Your task to perform on an android device: set the stopwatch Image 0: 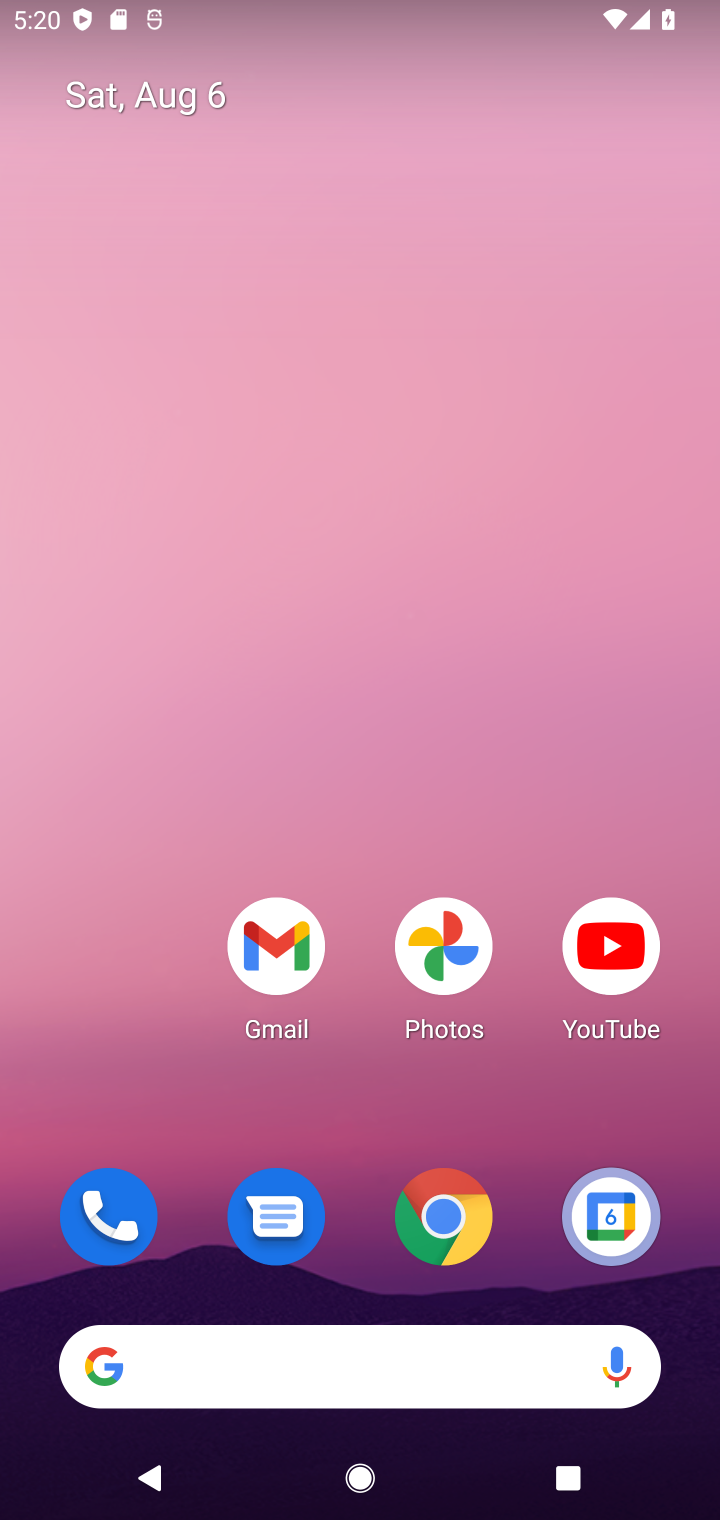
Step 0: drag from (342, 746) to (174, 588)
Your task to perform on an android device: set the stopwatch Image 1: 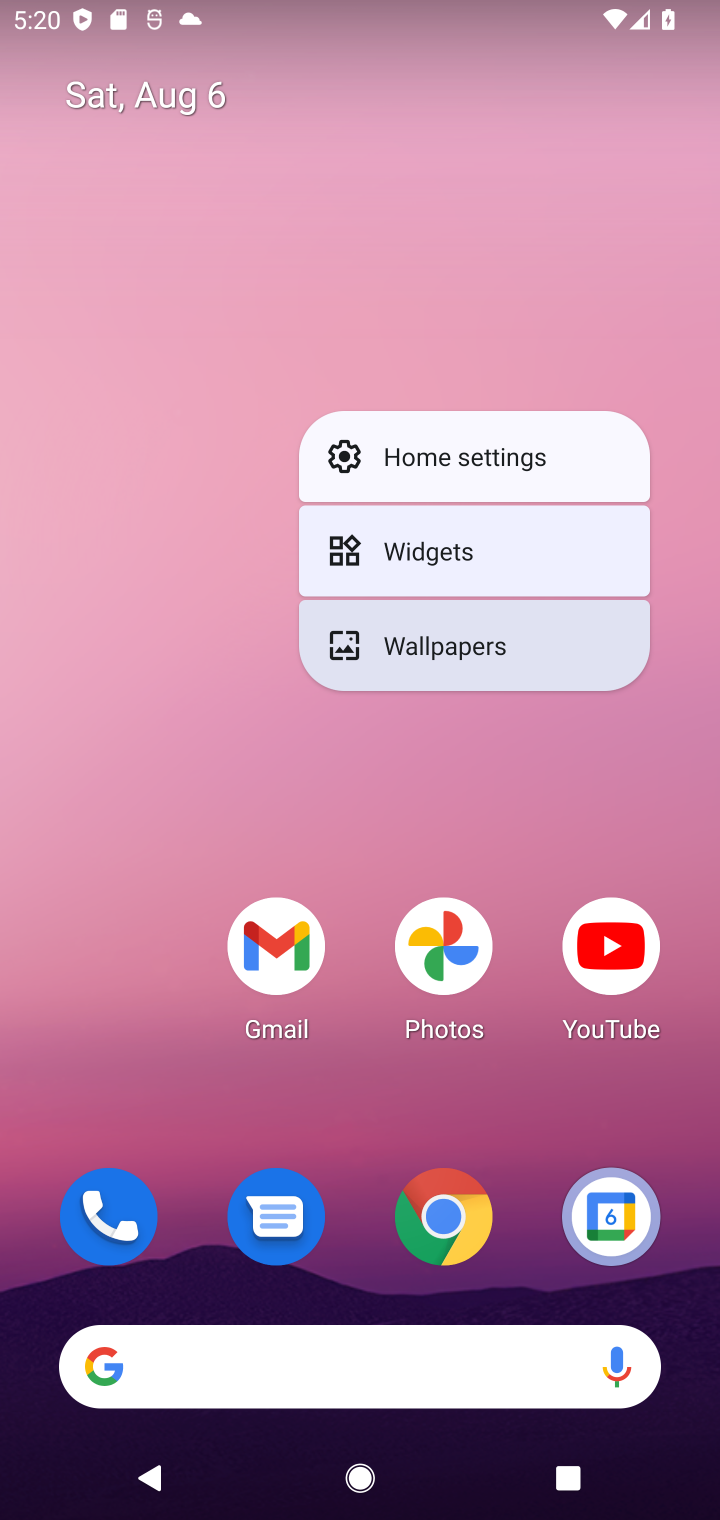
Step 1: click (225, 647)
Your task to perform on an android device: set the stopwatch Image 2: 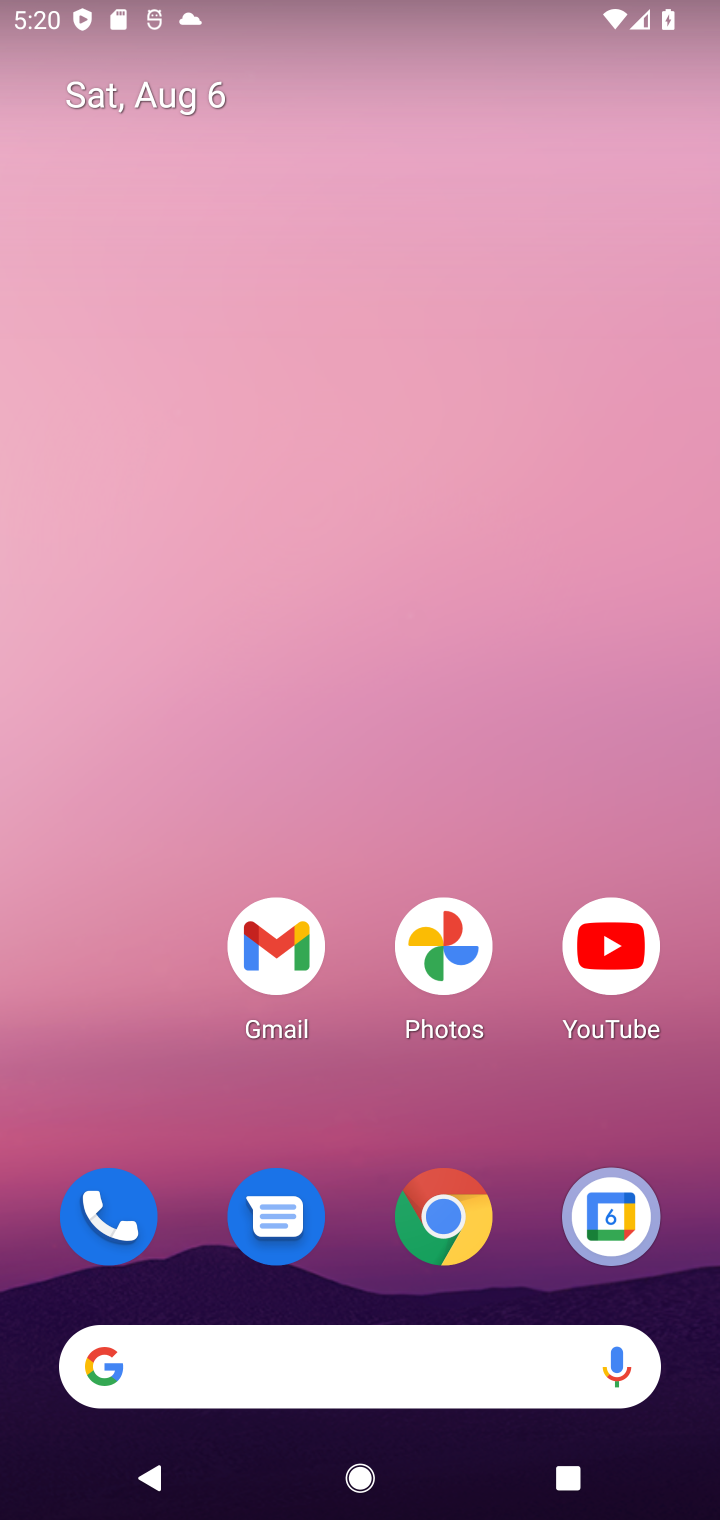
Step 2: drag from (346, 1122) to (405, 7)
Your task to perform on an android device: set the stopwatch Image 3: 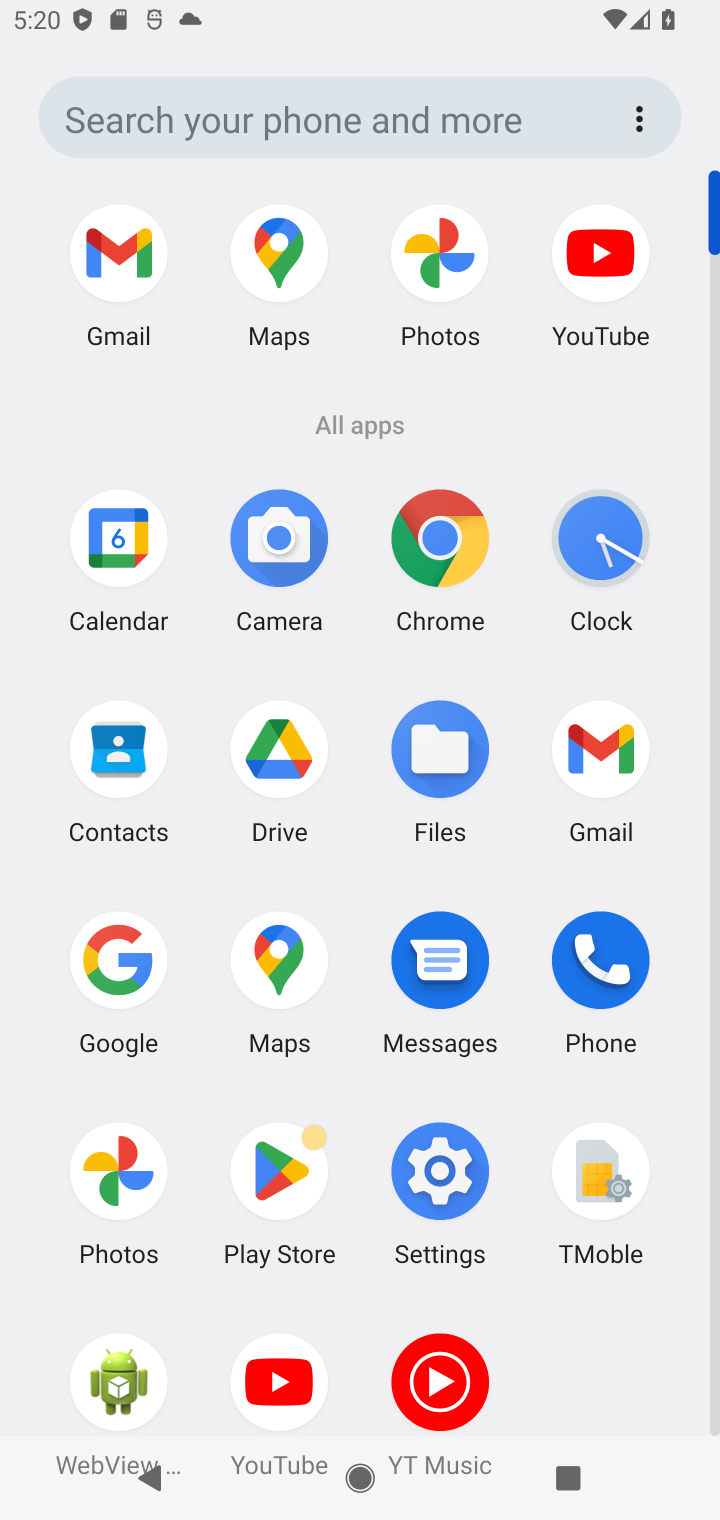
Step 3: click (613, 534)
Your task to perform on an android device: set the stopwatch Image 4: 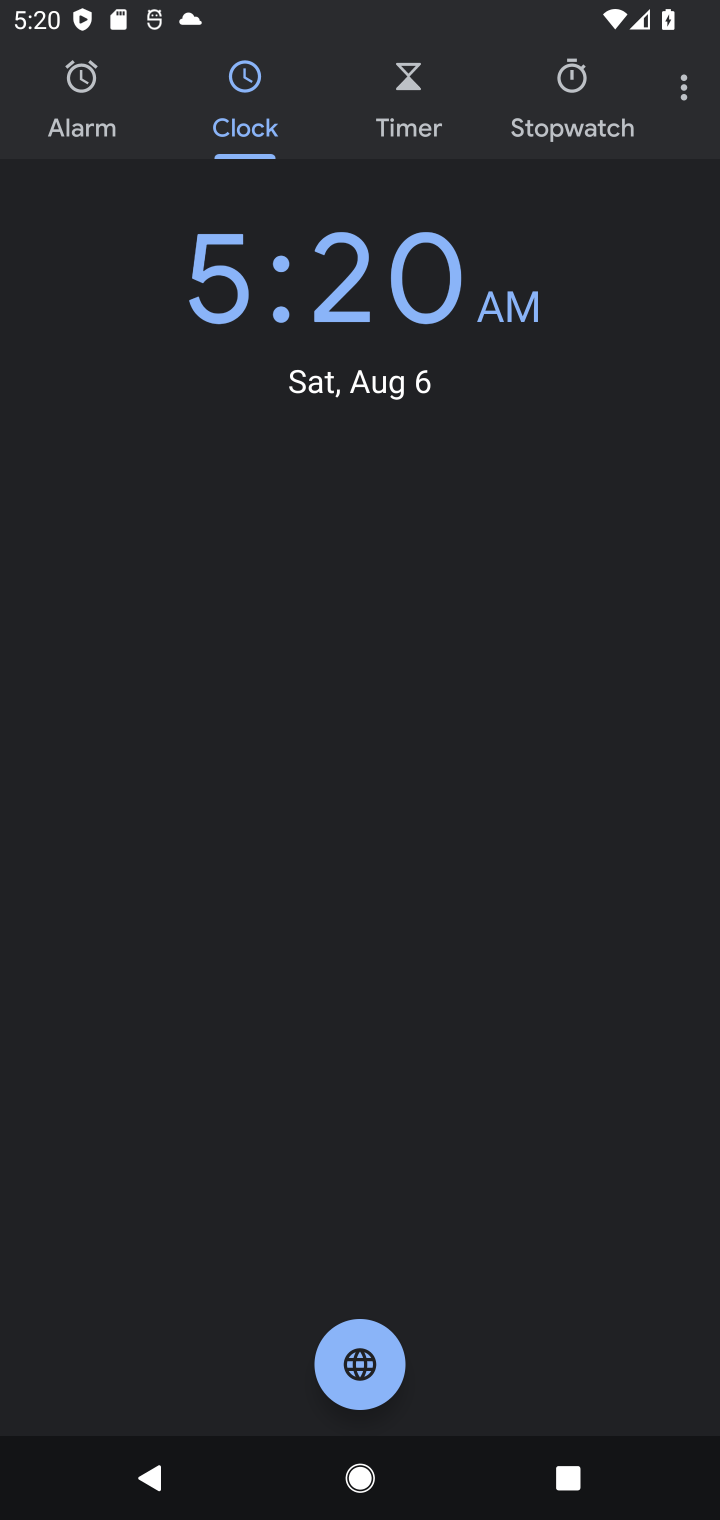
Step 4: click (558, 92)
Your task to perform on an android device: set the stopwatch Image 5: 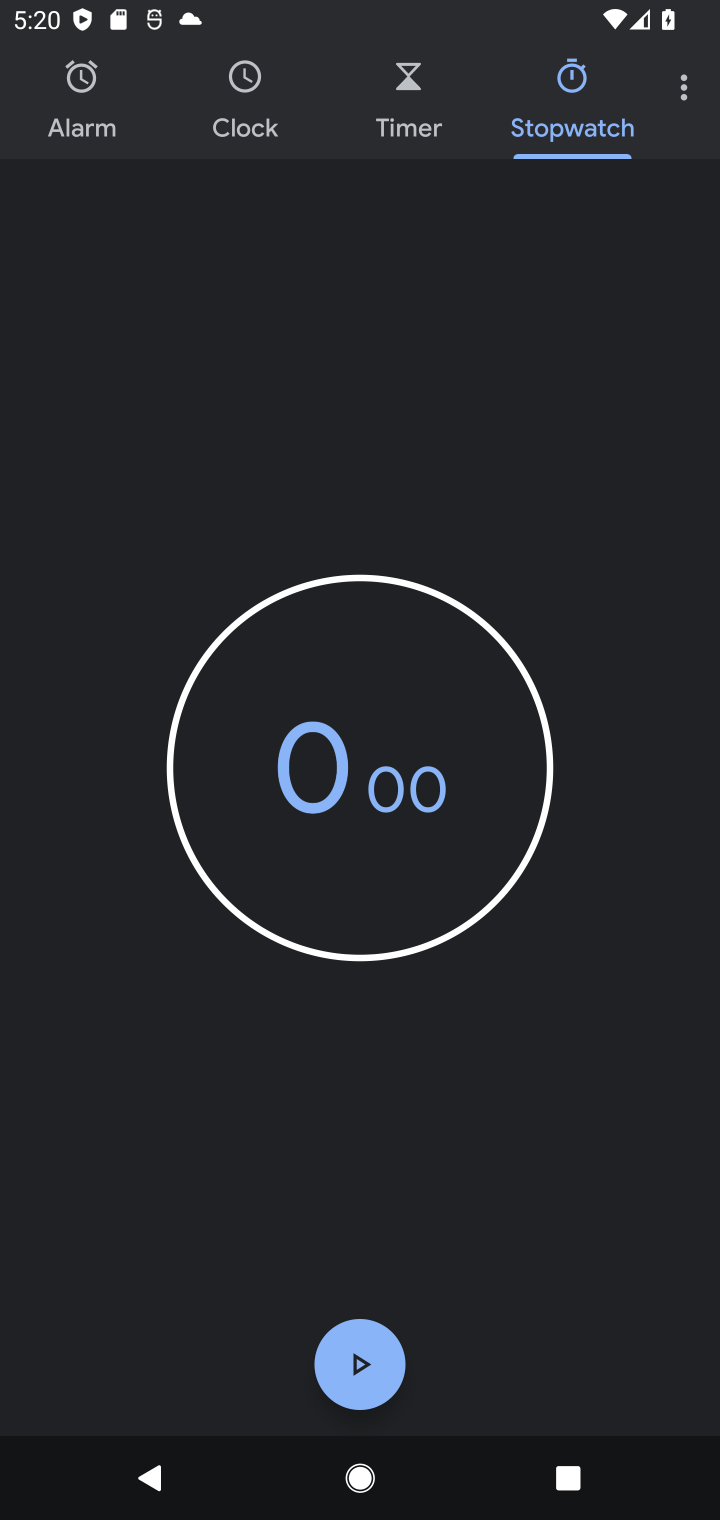
Step 5: click (361, 1366)
Your task to perform on an android device: set the stopwatch Image 6: 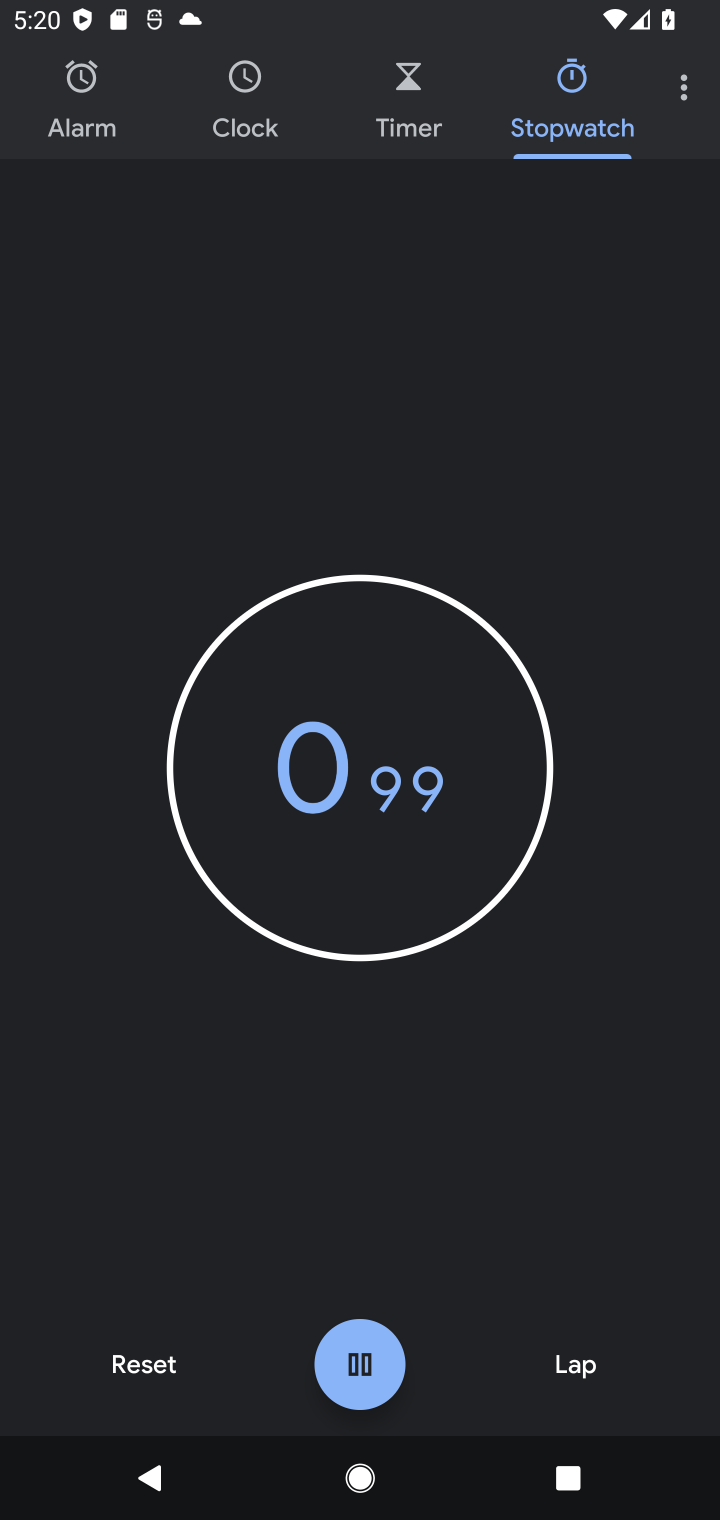
Step 6: click (361, 1366)
Your task to perform on an android device: set the stopwatch Image 7: 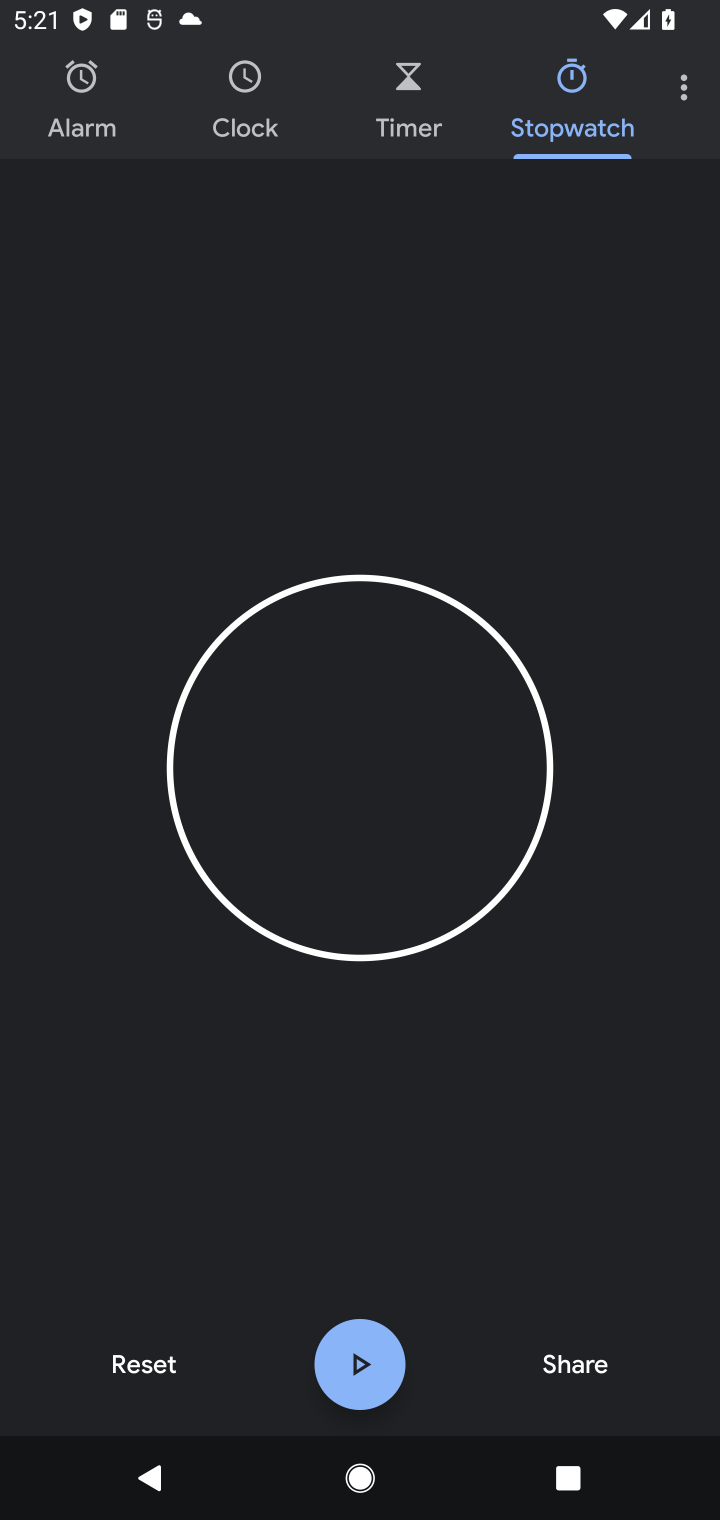
Step 7: task complete